Your task to perform on an android device: change alarm snooze length Image 0: 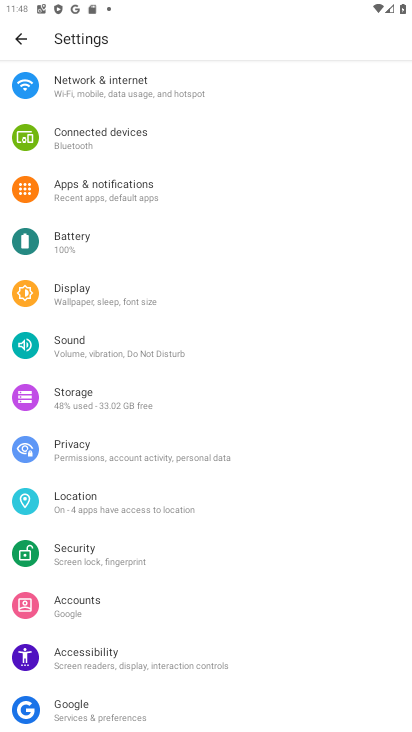
Step 0: press home button
Your task to perform on an android device: change alarm snooze length Image 1: 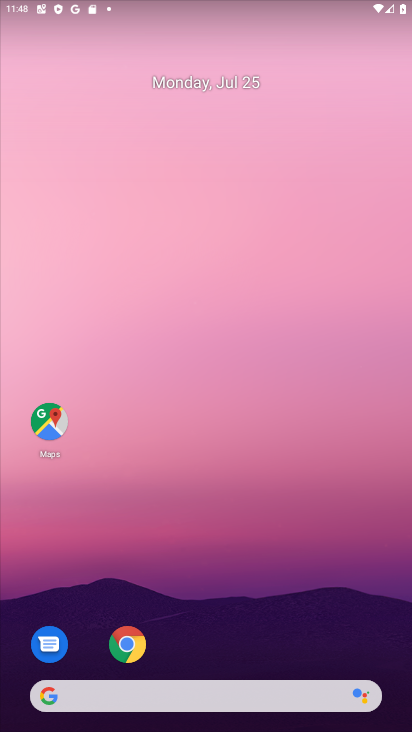
Step 1: drag from (246, 673) to (266, 38)
Your task to perform on an android device: change alarm snooze length Image 2: 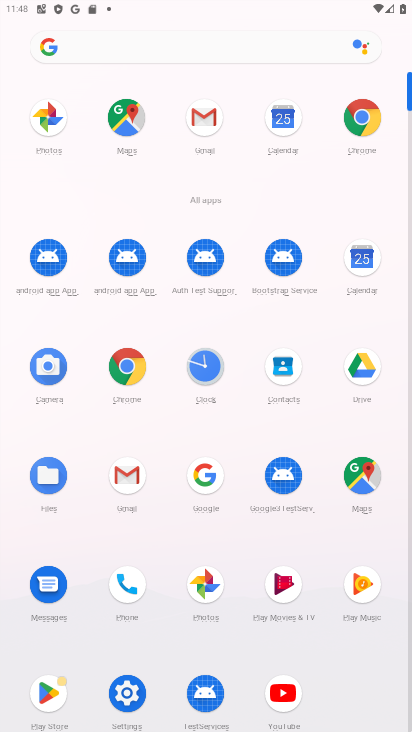
Step 2: click (209, 368)
Your task to perform on an android device: change alarm snooze length Image 3: 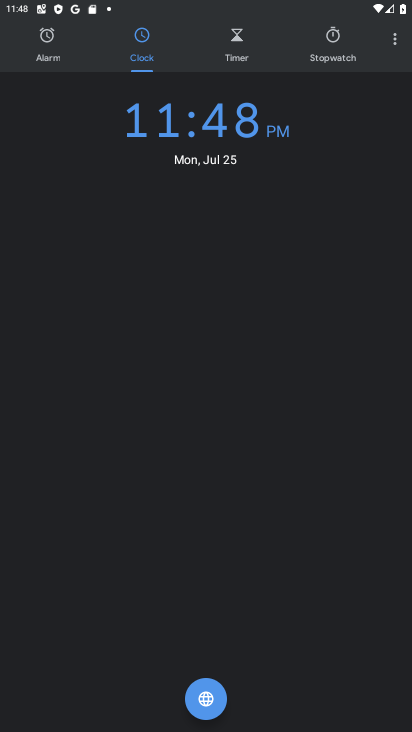
Step 3: click (394, 42)
Your task to perform on an android device: change alarm snooze length Image 4: 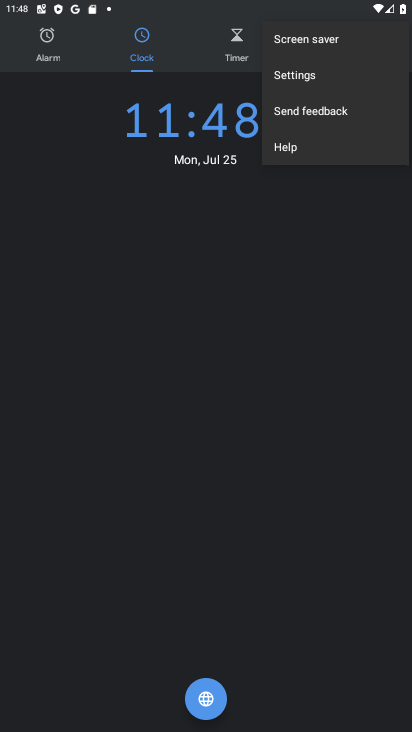
Step 4: click (294, 85)
Your task to perform on an android device: change alarm snooze length Image 5: 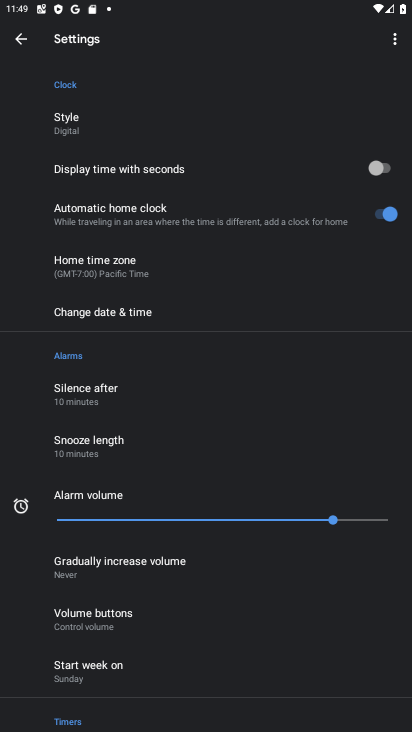
Step 5: click (88, 454)
Your task to perform on an android device: change alarm snooze length Image 6: 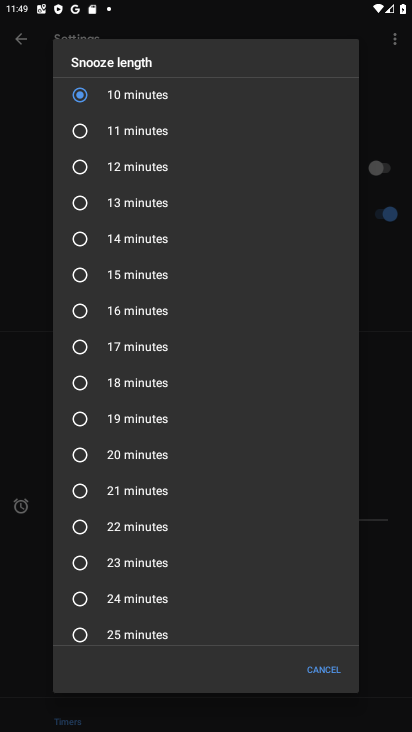
Step 6: click (79, 173)
Your task to perform on an android device: change alarm snooze length Image 7: 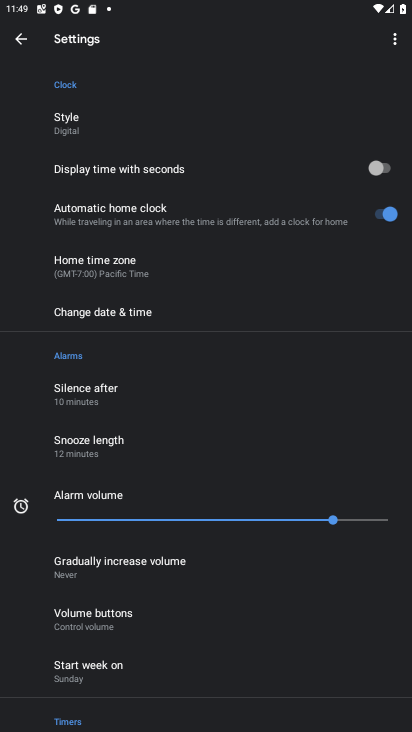
Step 7: task complete